Your task to perform on an android device: change the upload size in google photos Image 0: 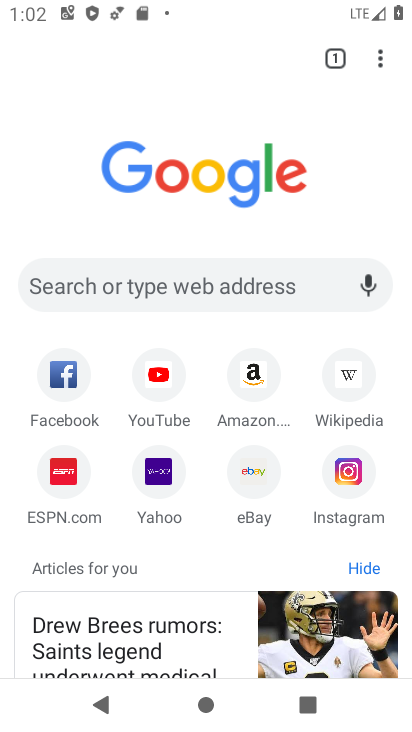
Step 0: press home button
Your task to perform on an android device: change the upload size in google photos Image 1: 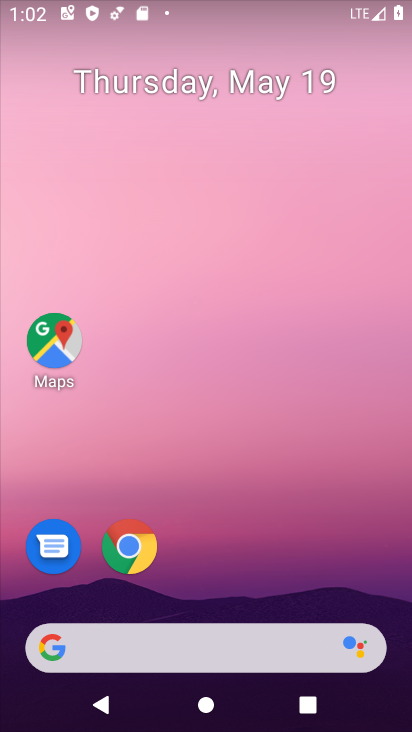
Step 1: drag from (173, 605) to (203, 178)
Your task to perform on an android device: change the upload size in google photos Image 2: 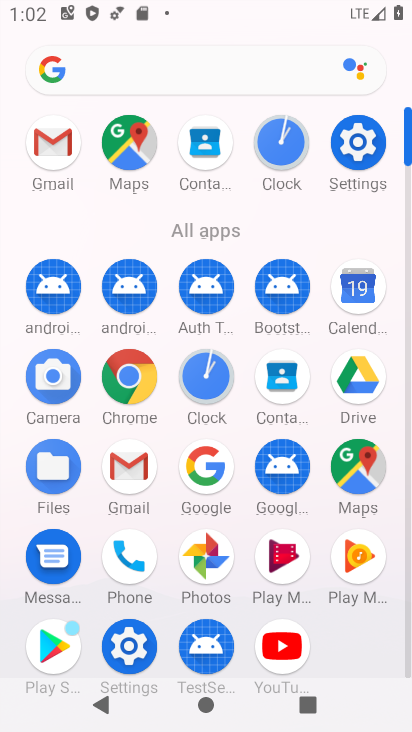
Step 2: click (208, 543)
Your task to perform on an android device: change the upload size in google photos Image 3: 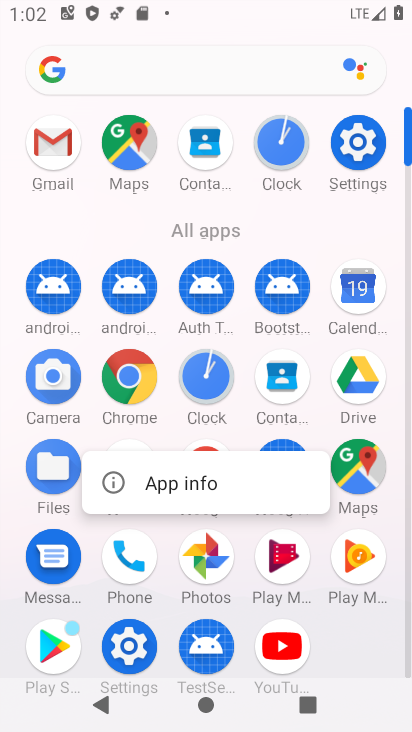
Step 3: click (202, 561)
Your task to perform on an android device: change the upload size in google photos Image 4: 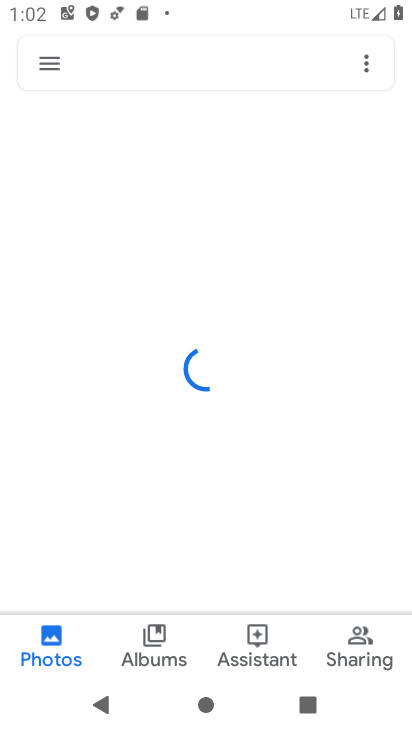
Step 4: click (51, 71)
Your task to perform on an android device: change the upload size in google photos Image 5: 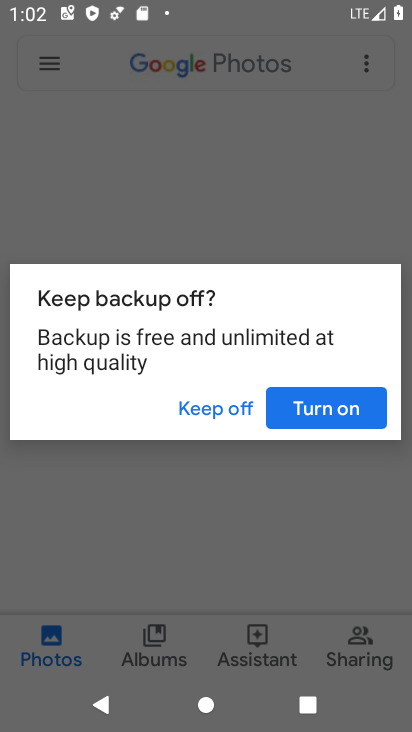
Step 5: click (310, 413)
Your task to perform on an android device: change the upload size in google photos Image 6: 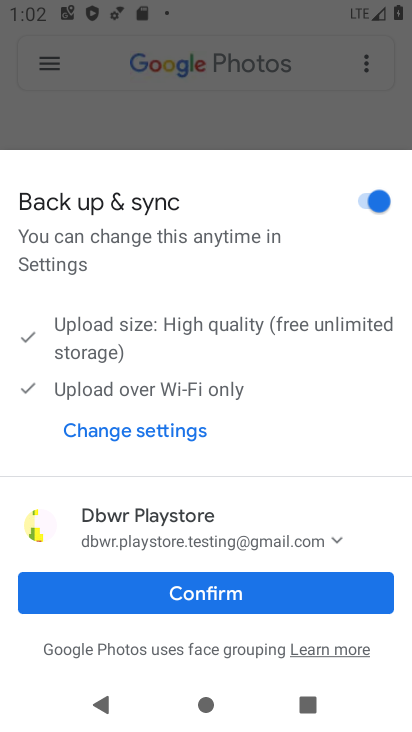
Step 6: click (120, 438)
Your task to perform on an android device: change the upload size in google photos Image 7: 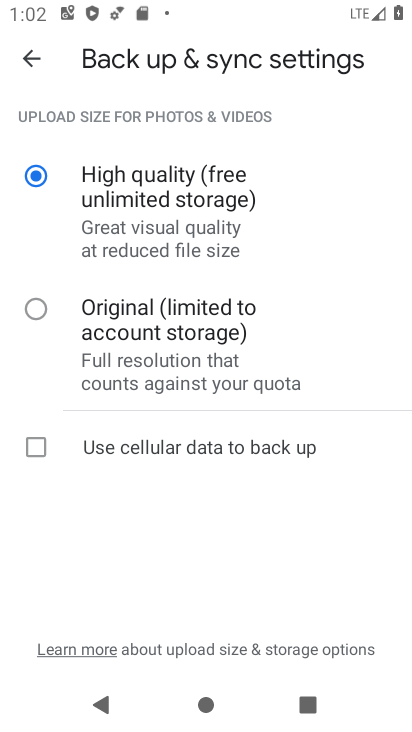
Step 7: click (171, 351)
Your task to perform on an android device: change the upload size in google photos Image 8: 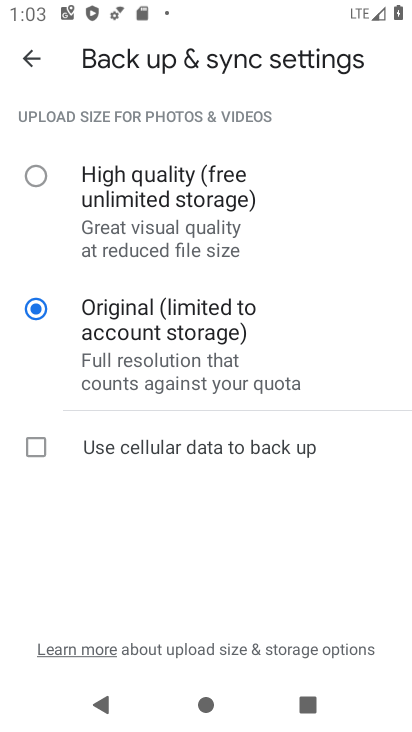
Step 8: task complete